Your task to perform on an android device: What is the recent news? Image 0: 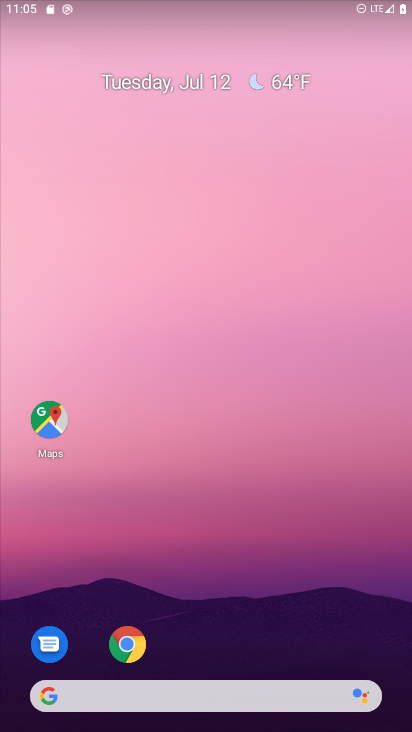
Step 0: click (261, 692)
Your task to perform on an android device: What is the recent news? Image 1: 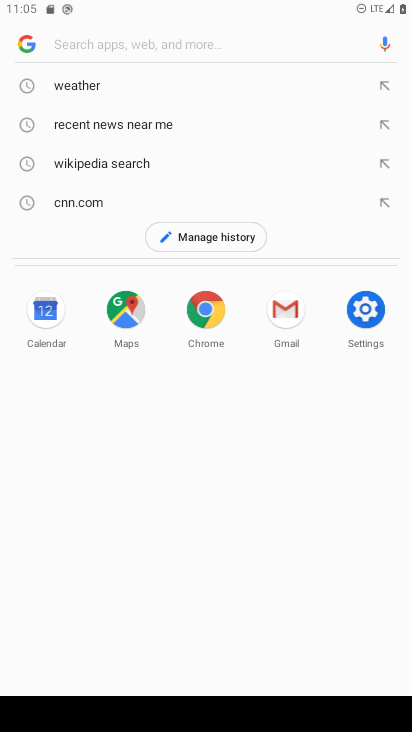
Step 1: click (89, 127)
Your task to perform on an android device: What is the recent news? Image 2: 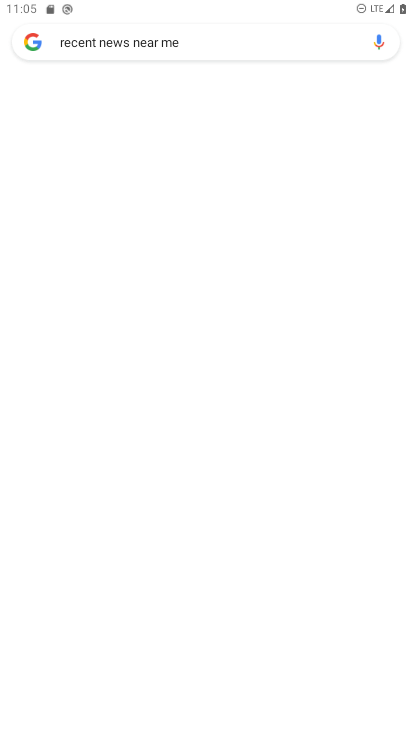
Step 2: task complete